Your task to perform on an android device: find which apps use the phone's location Image 0: 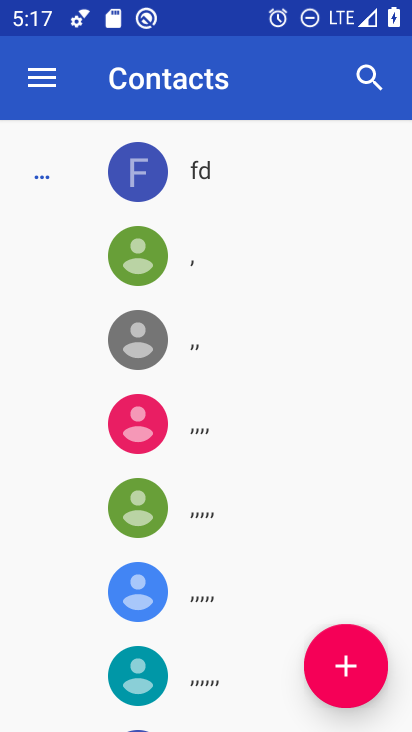
Step 0: press home button
Your task to perform on an android device: find which apps use the phone's location Image 1: 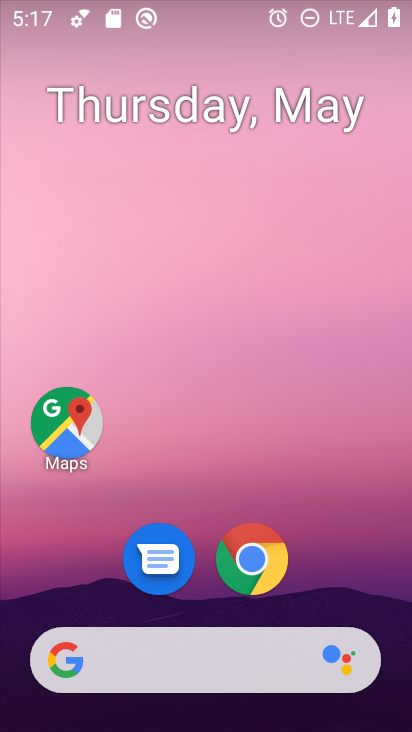
Step 1: drag from (339, 463) to (199, 29)
Your task to perform on an android device: find which apps use the phone's location Image 2: 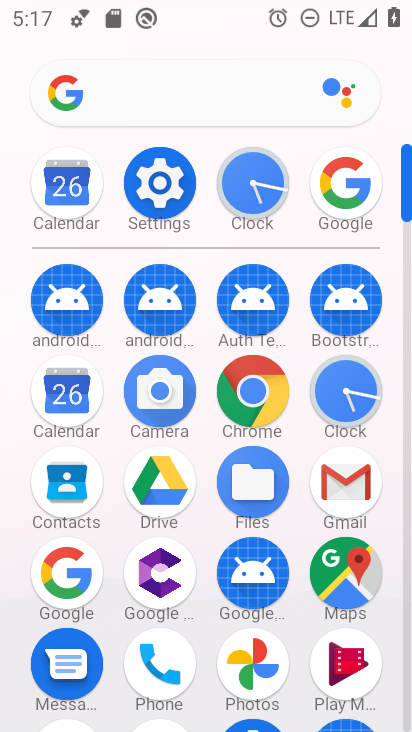
Step 2: click (144, 187)
Your task to perform on an android device: find which apps use the phone's location Image 3: 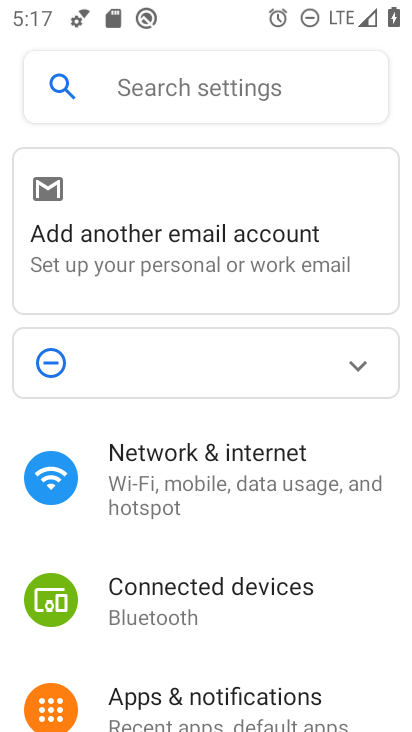
Step 3: drag from (271, 612) to (242, 39)
Your task to perform on an android device: find which apps use the phone's location Image 4: 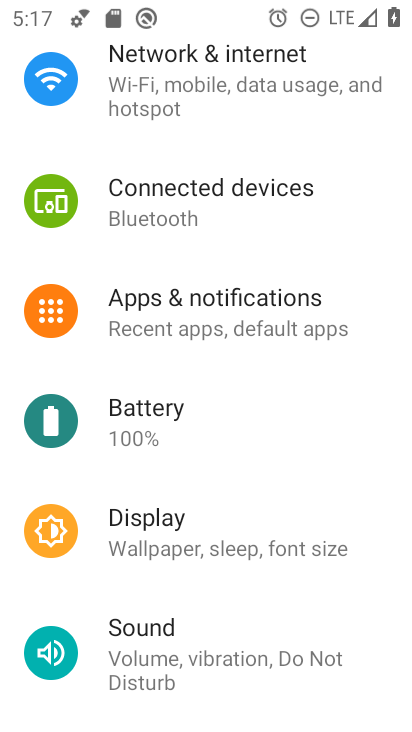
Step 4: drag from (223, 501) to (169, 21)
Your task to perform on an android device: find which apps use the phone's location Image 5: 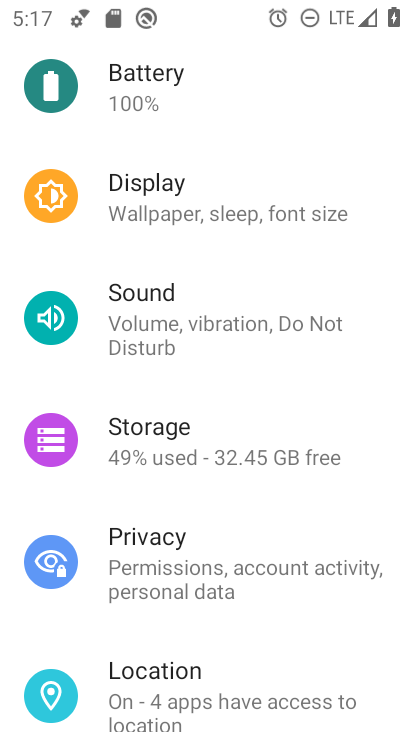
Step 5: click (209, 691)
Your task to perform on an android device: find which apps use the phone's location Image 6: 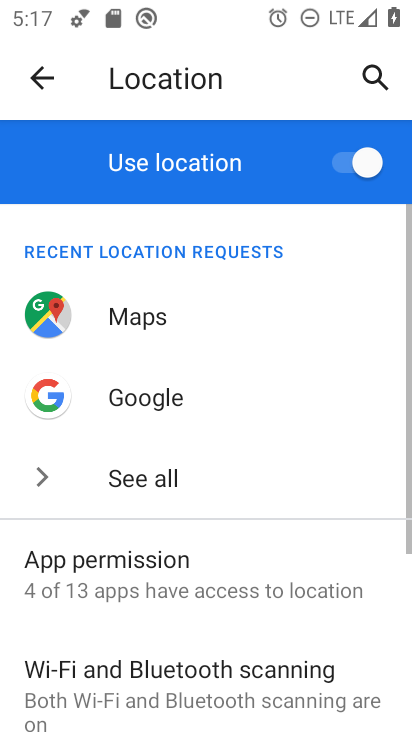
Step 6: click (212, 569)
Your task to perform on an android device: find which apps use the phone's location Image 7: 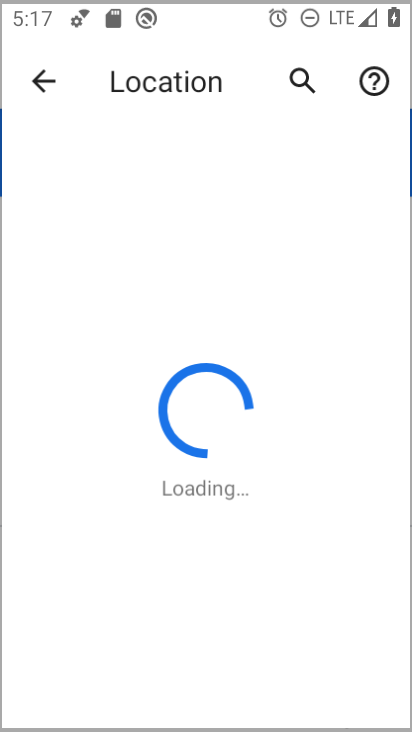
Step 7: task complete